Your task to perform on an android device: Search for Mexican restaurants on Maps Image 0: 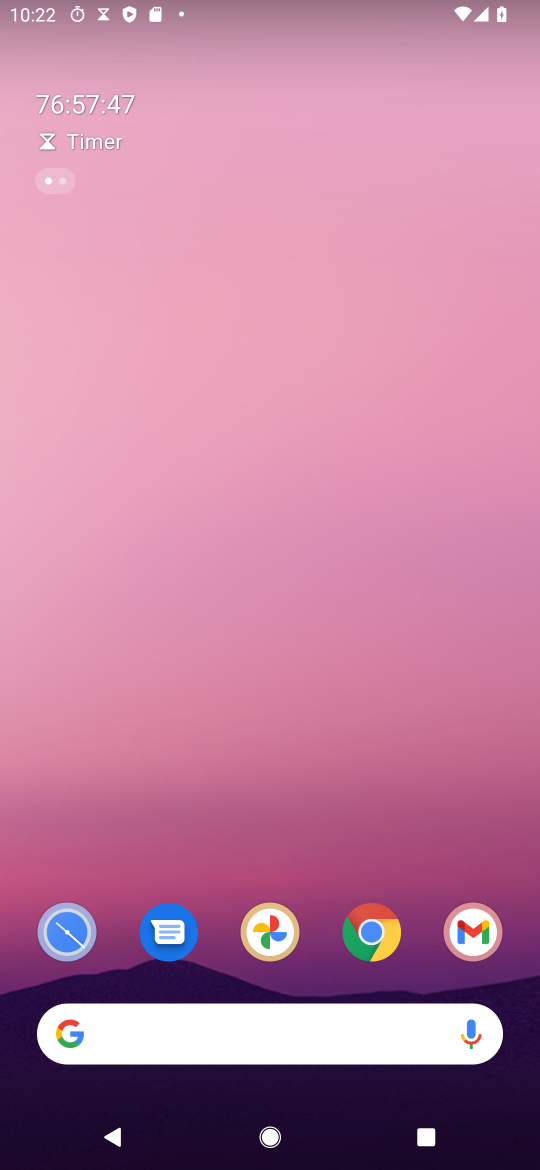
Step 0: drag from (379, 871) to (217, 31)
Your task to perform on an android device: Search for Mexican restaurants on Maps Image 1: 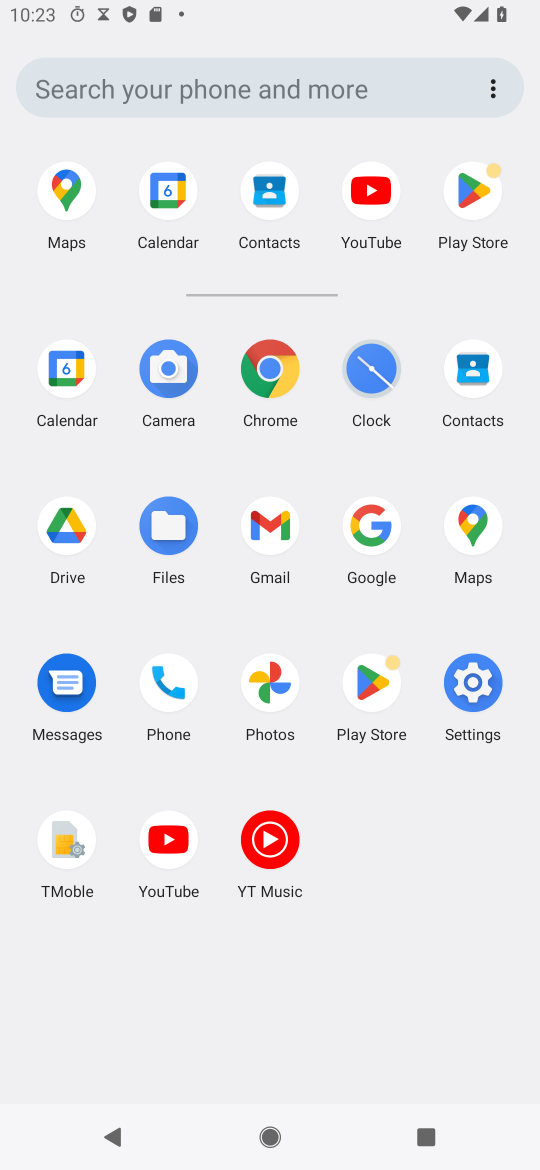
Step 1: click (60, 173)
Your task to perform on an android device: Search for Mexican restaurants on Maps Image 2: 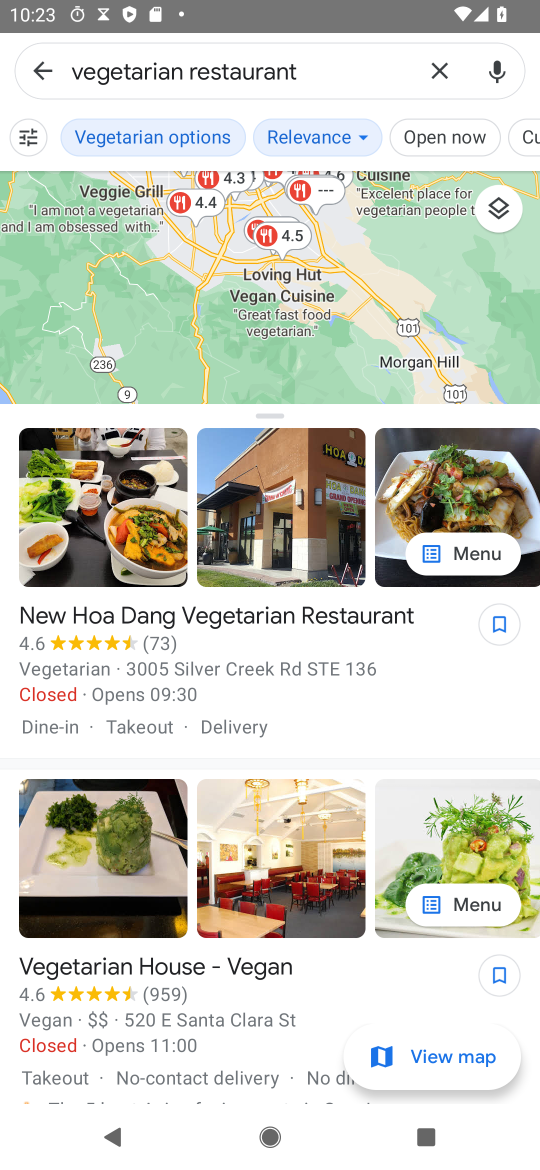
Step 2: click (446, 71)
Your task to perform on an android device: Search for Mexican restaurants on Maps Image 3: 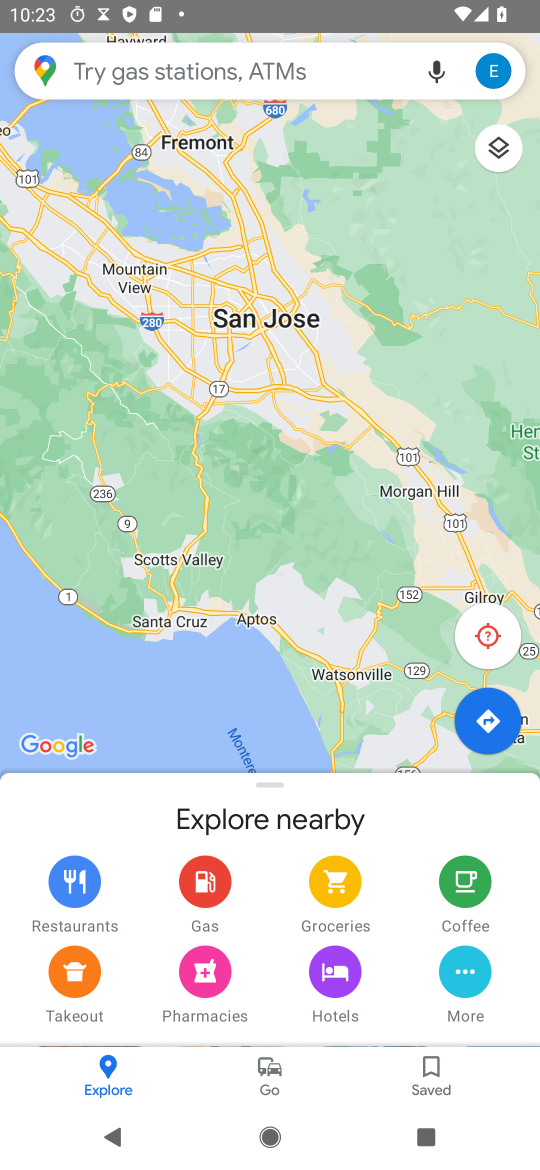
Step 3: click (214, 82)
Your task to perform on an android device: Search for Mexican restaurants on Maps Image 4: 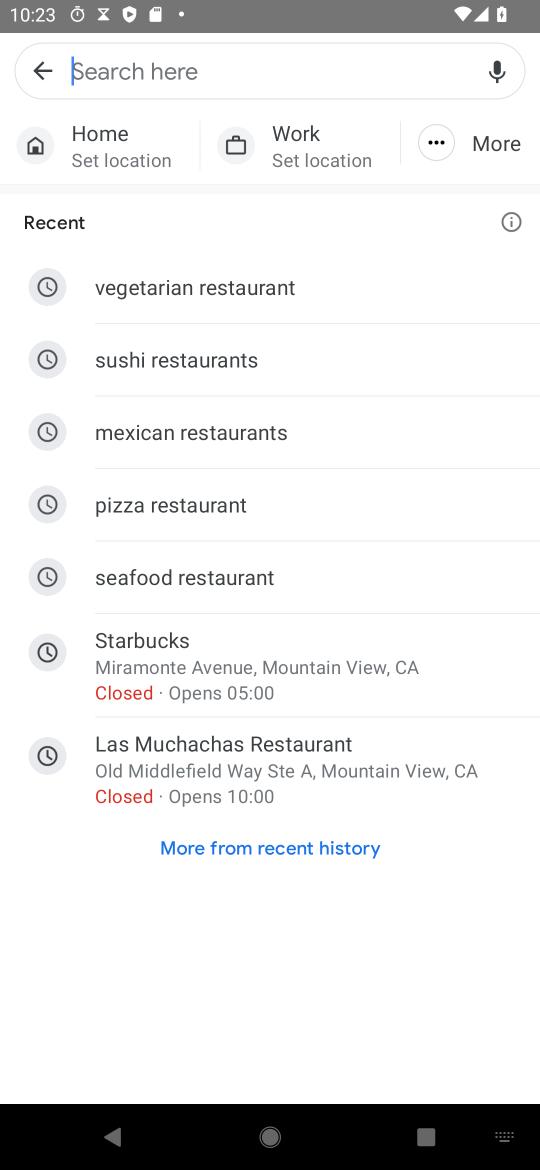
Step 4: click (203, 433)
Your task to perform on an android device: Search for Mexican restaurants on Maps Image 5: 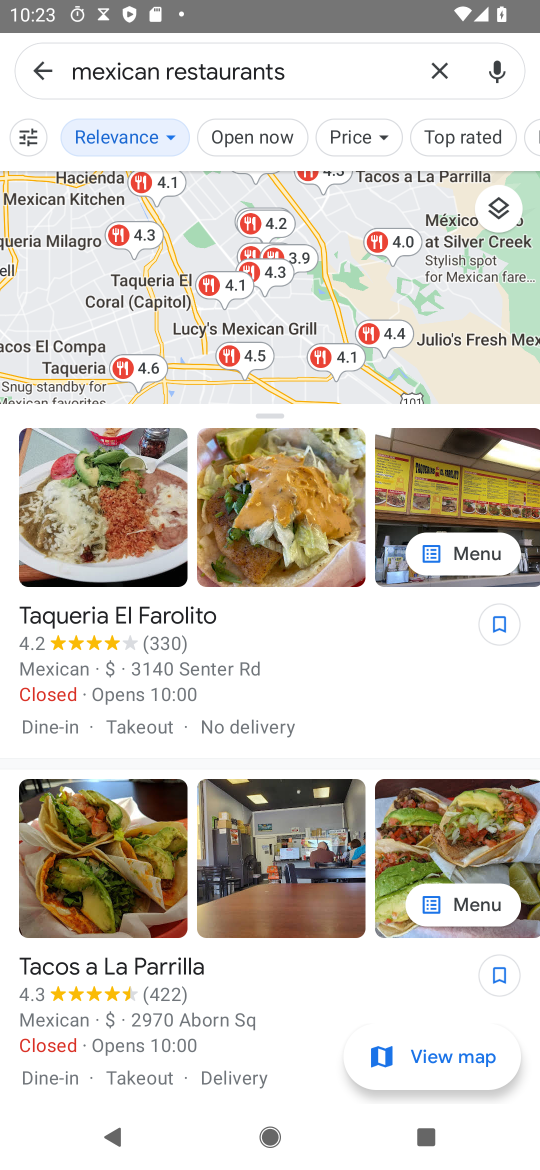
Step 5: task complete